Your task to perform on an android device: Is it going to rain today? Image 0: 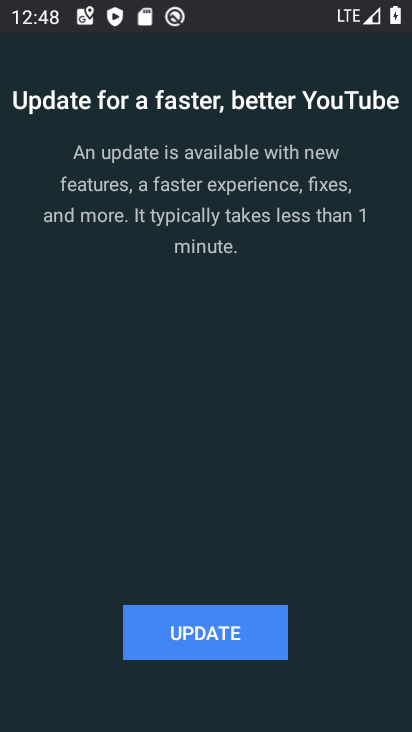
Step 0: click (240, 632)
Your task to perform on an android device: Is it going to rain today? Image 1: 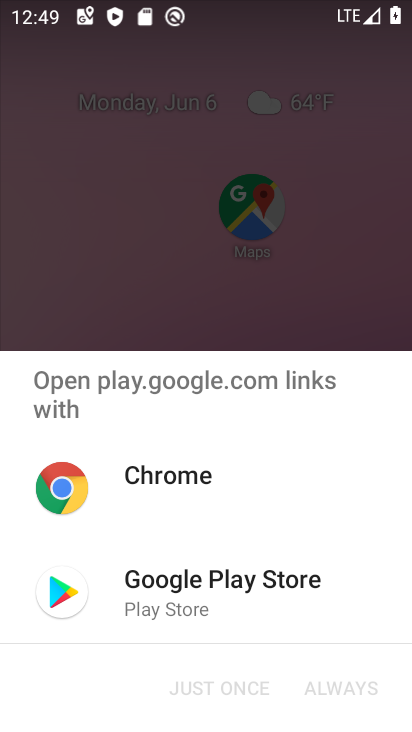
Step 1: press home button
Your task to perform on an android device: Is it going to rain today? Image 2: 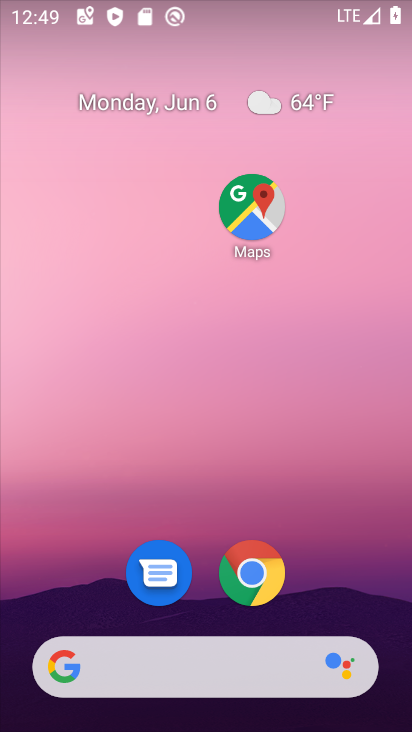
Step 2: drag from (202, 512) to (189, 60)
Your task to perform on an android device: Is it going to rain today? Image 3: 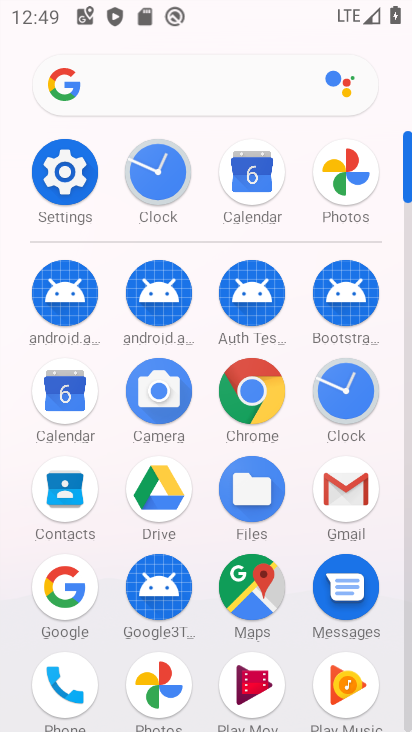
Step 3: click (73, 584)
Your task to perform on an android device: Is it going to rain today? Image 4: 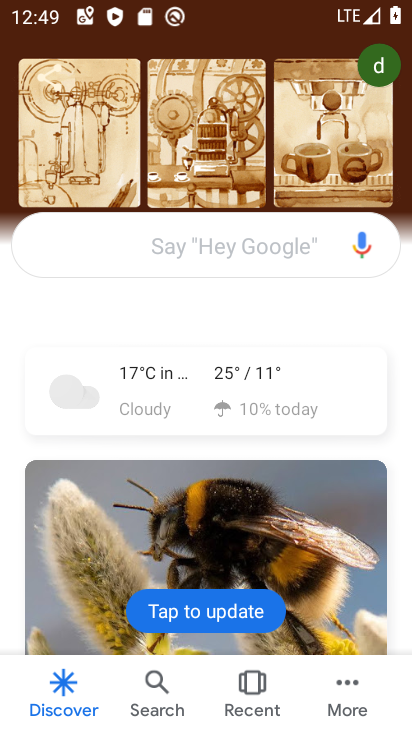
Step 4: click (183, 381)
Your task to perform on an android device: Is it going to rain today? Image 5: 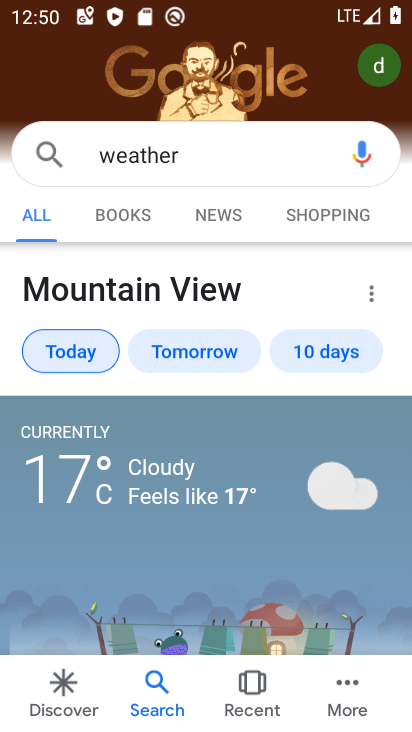
Step 5: task complete